Your task to perform on an android device: open app "Pandora - Music & Podcasts" Image 0: 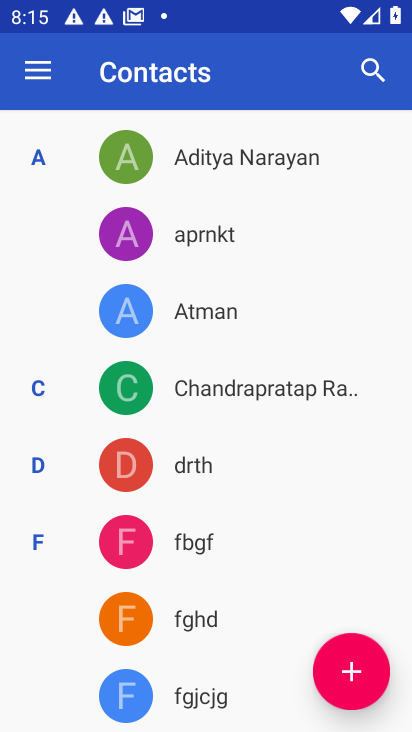
Step 0: press home button
Your task to perform on an android device: open app "Pandora - Music & Podcasts" Image 1: 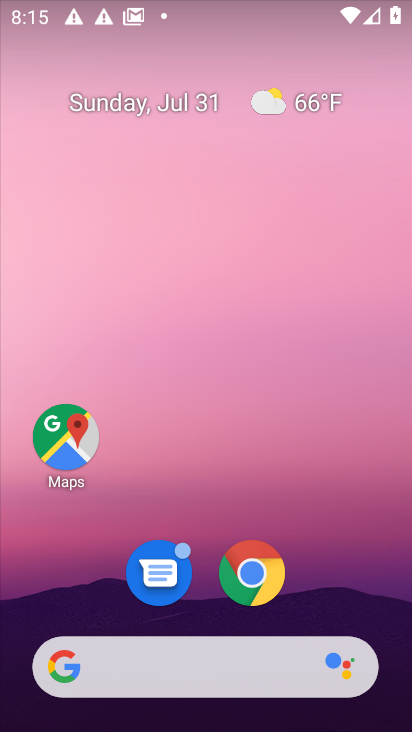
Step 1: drag from (212, 605) to (244, 15)
Your task to perform on an android device: open app "Pandora - Music & Podcasts" Image 2: 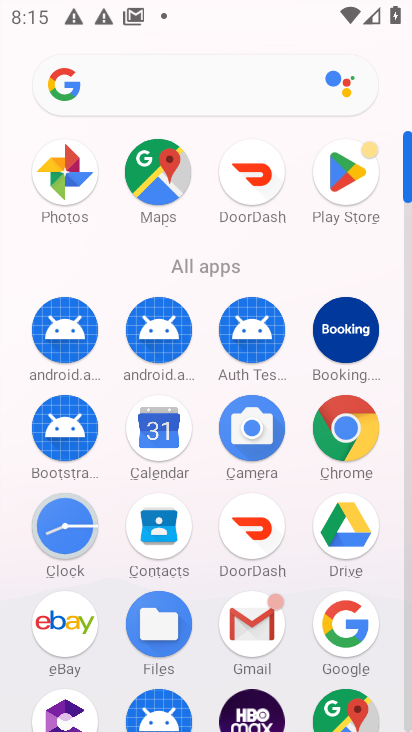
Step 2: click (356, 183)
Your task to perform on an android device: open app "Pandora - Music & Podcasts" Image 3: 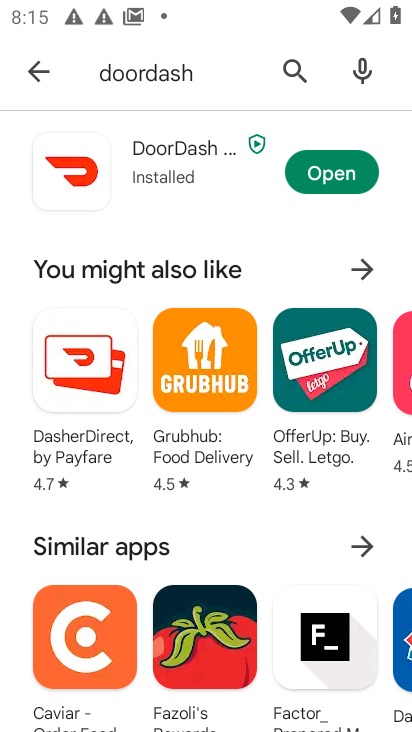
Step 3: click (181, 80)
Your task to perform on an android device: open app "Pandora - Music & Podcasts" Image 4: 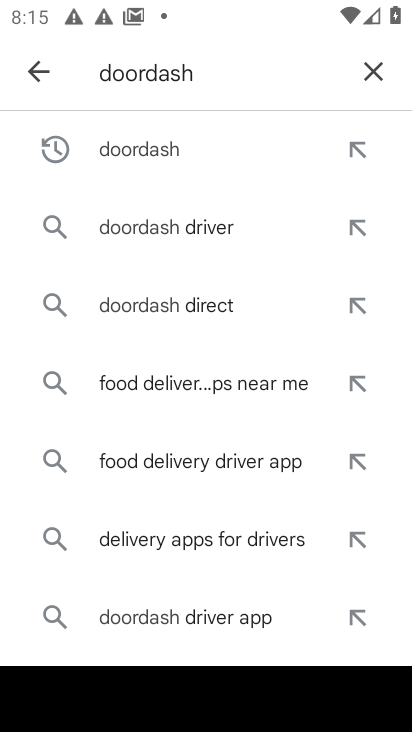
Step 4: click (377, 64)
Your task to perform on an android device: open app "Pandora - Music & Podcasts" Image 5: 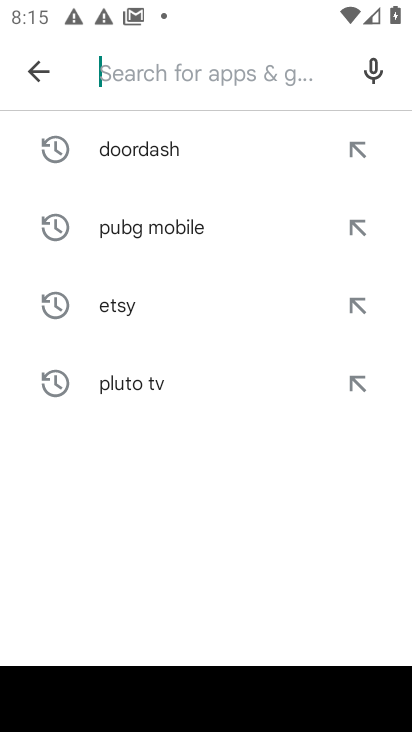
Step 5: type "pandora "
Your task to perform on an android device: open app "Pandora - Music & Podcasts" Image 6: 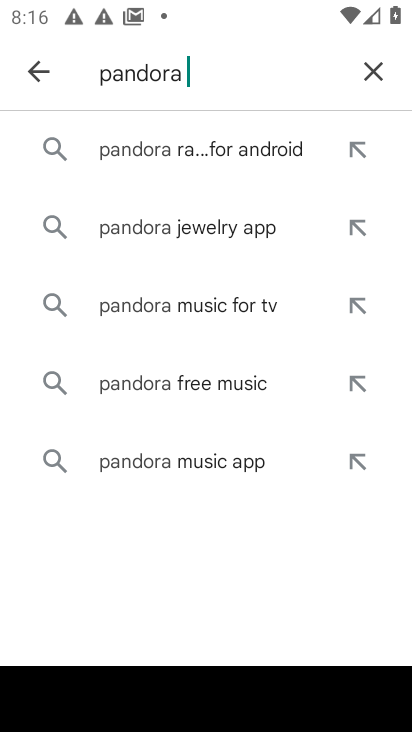
Step 6: click (180, 308)
Your task to perform on an android device: open app "Pandora - Music & Podcasts" Image 7: 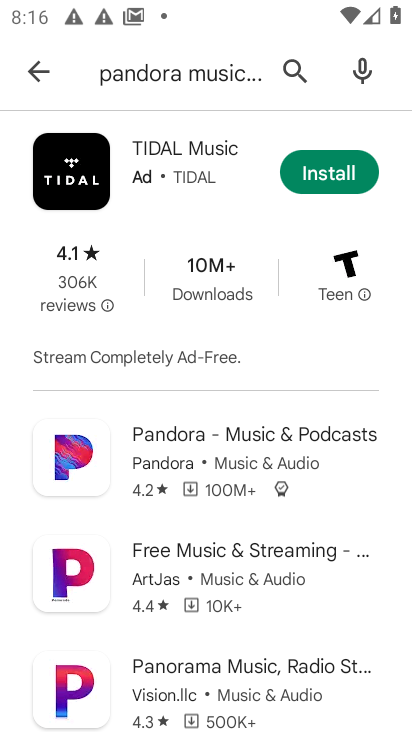
Step 7: click (63, 452)
Your task to perform on an android device: open app "Pandora - Music & Podcasts" Image 8: 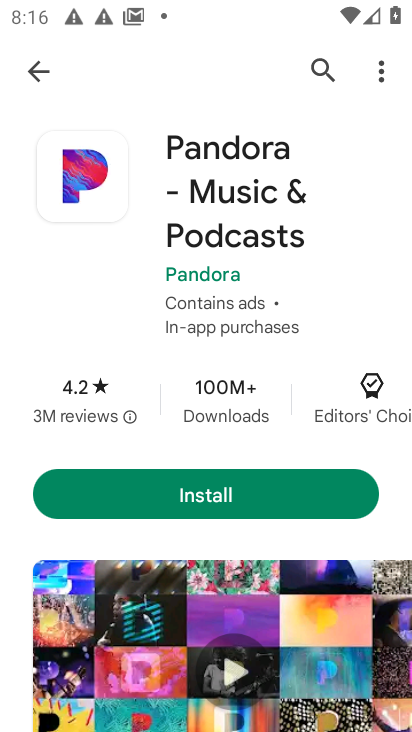
Step 8: task complete